Your task to perform on an android device: Add razer blade to the cart on target Image 0: 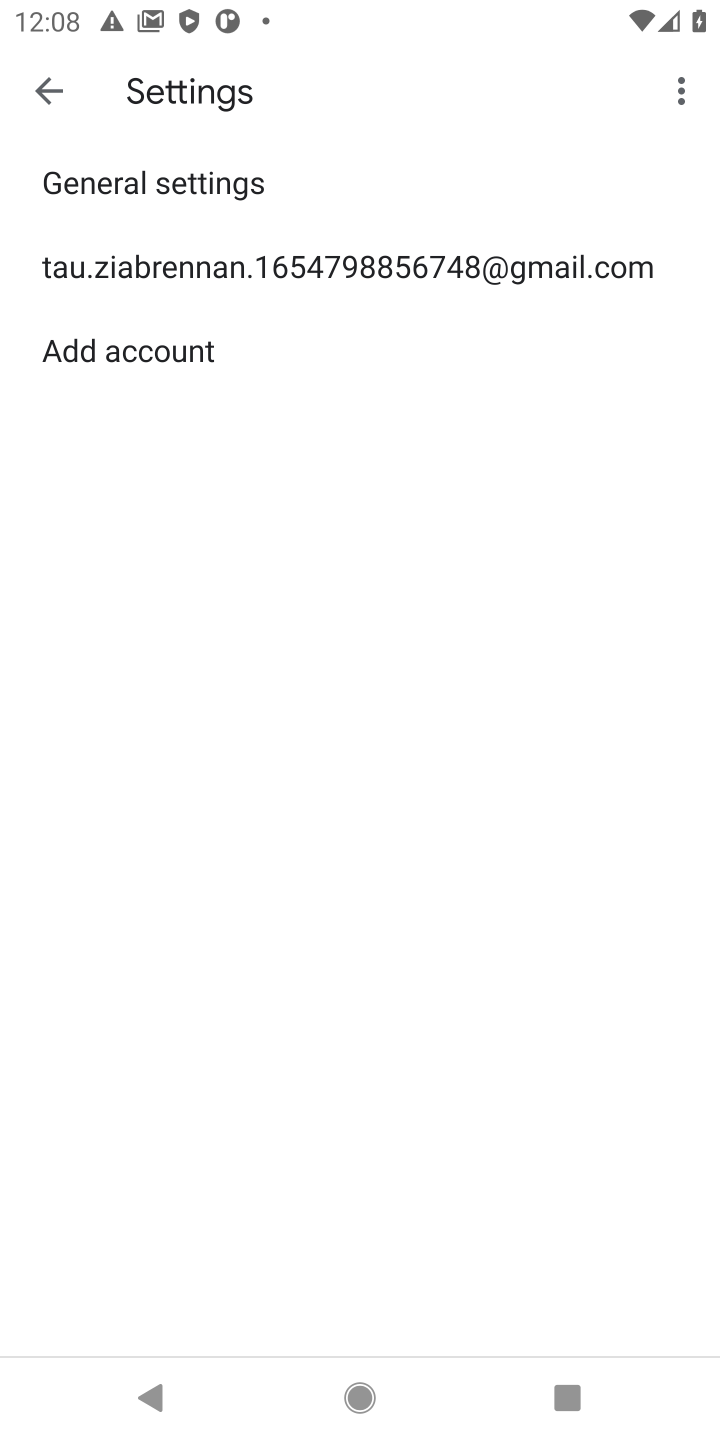
Step 0: press home button
Your task to perform on an android device: Add razer blade to the cart on target Image 1: 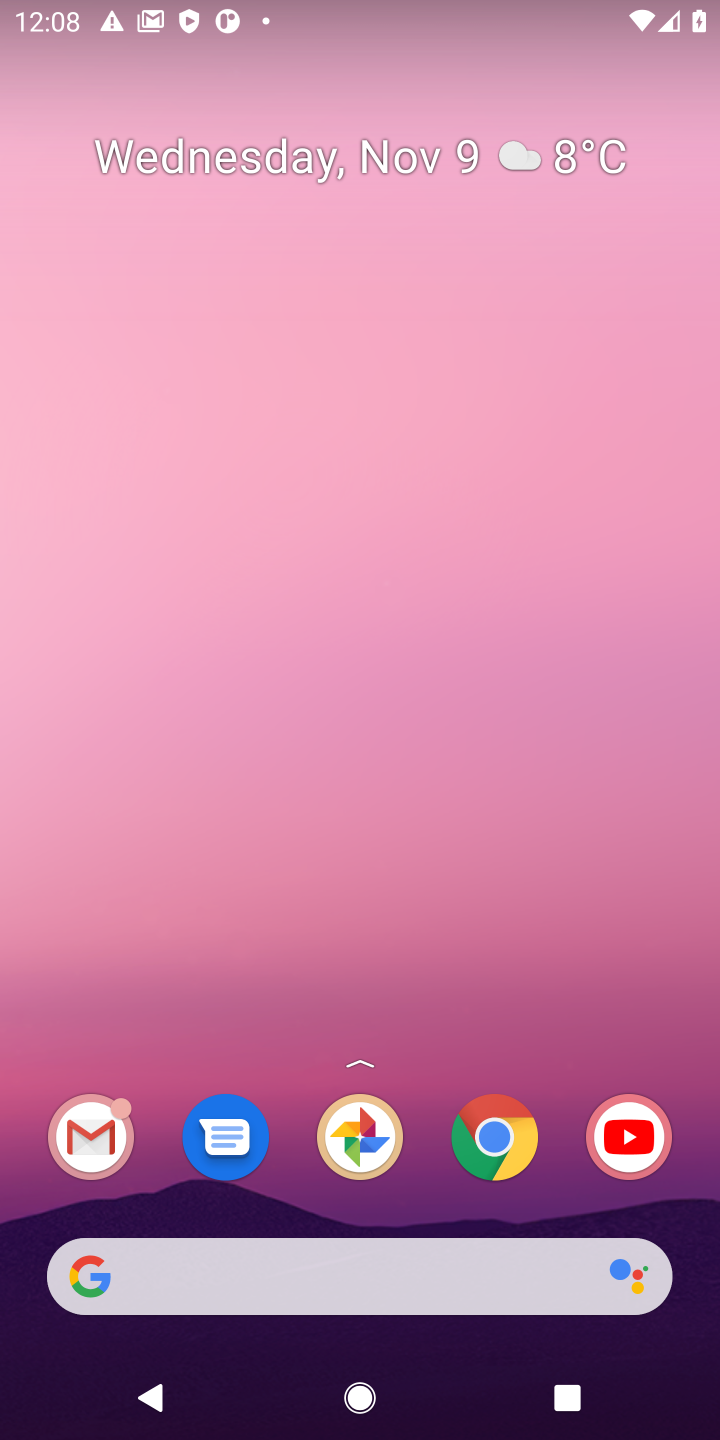
Step 1: click (503, 1131)
Your task to perform on an android device: Add razer blade to the cart on target Image 2: 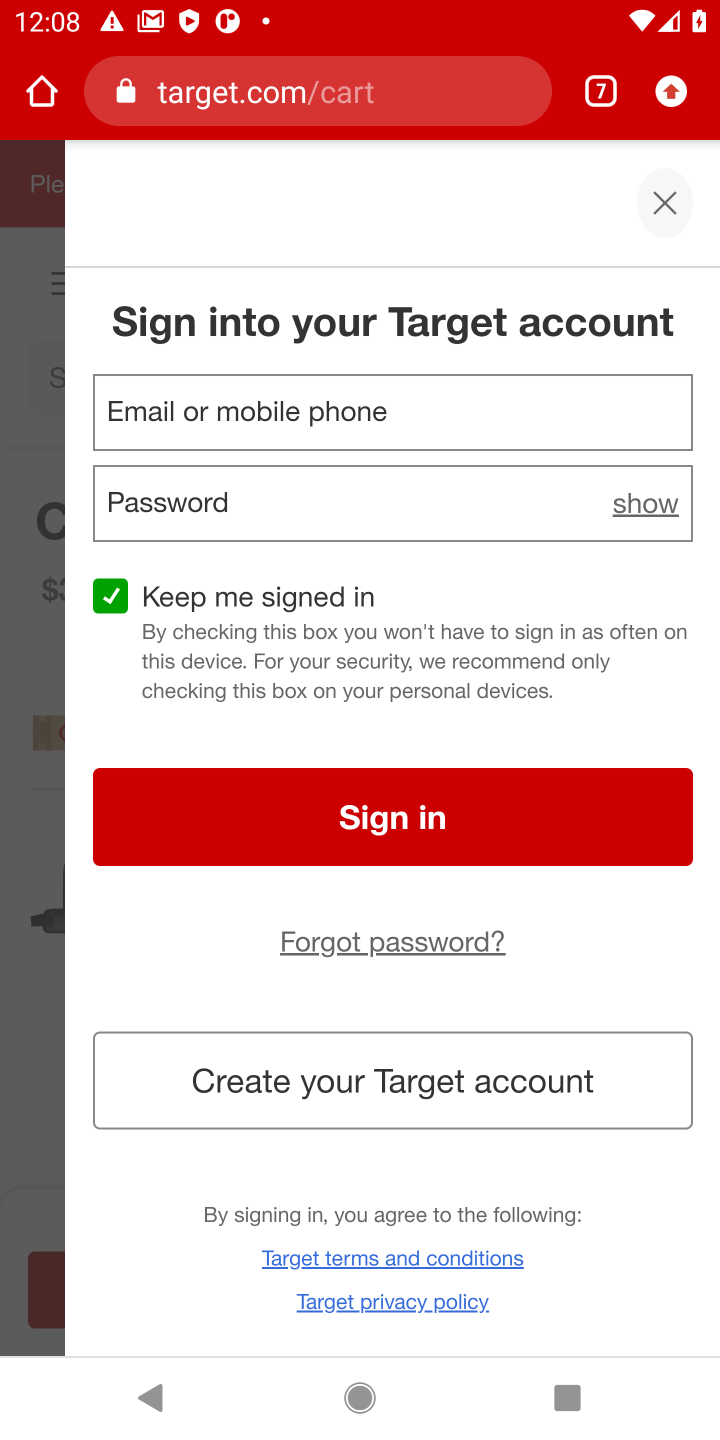
Step 2: click (660, 207)
Your task to perform on an android device: Add razer blade to the cart on target Image 3: 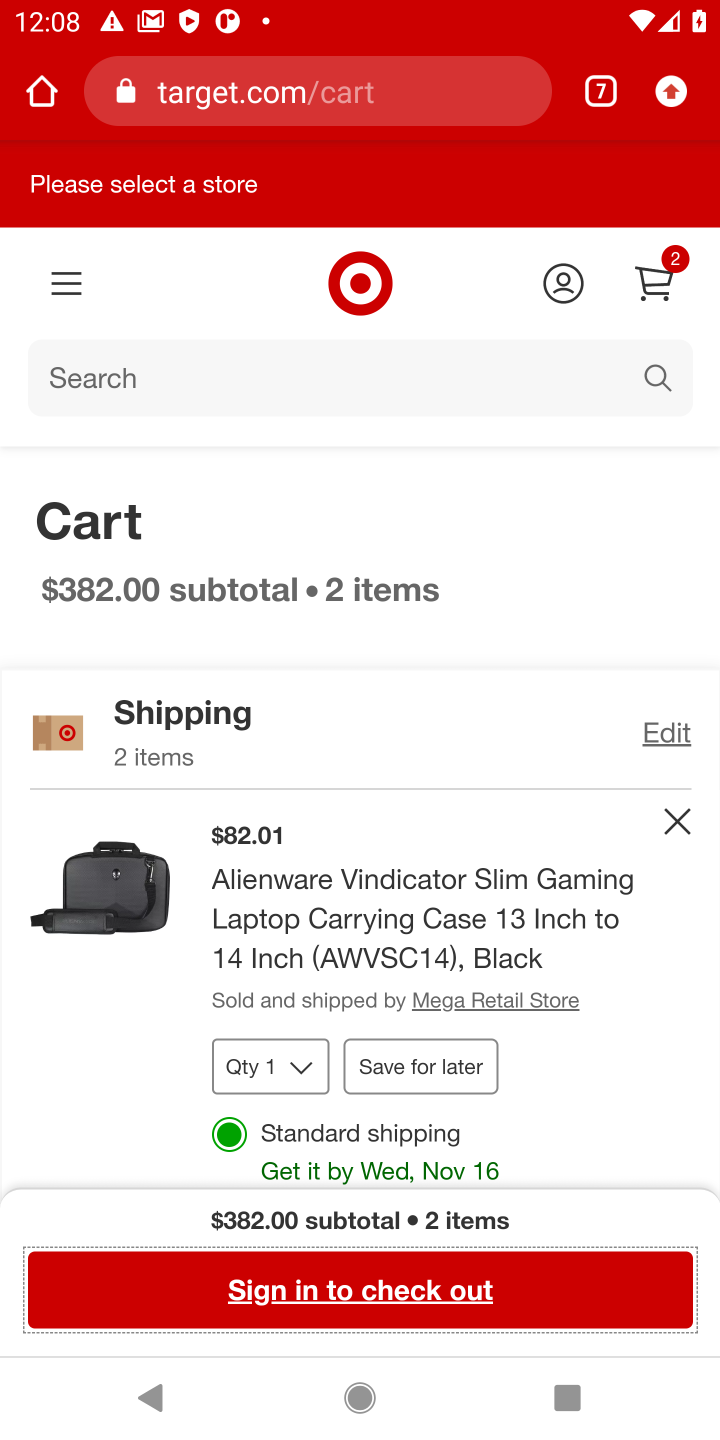
Step 3: click (240, 372)
Your task to perform on an android device: Add razer blade to the cart on target Image 4: 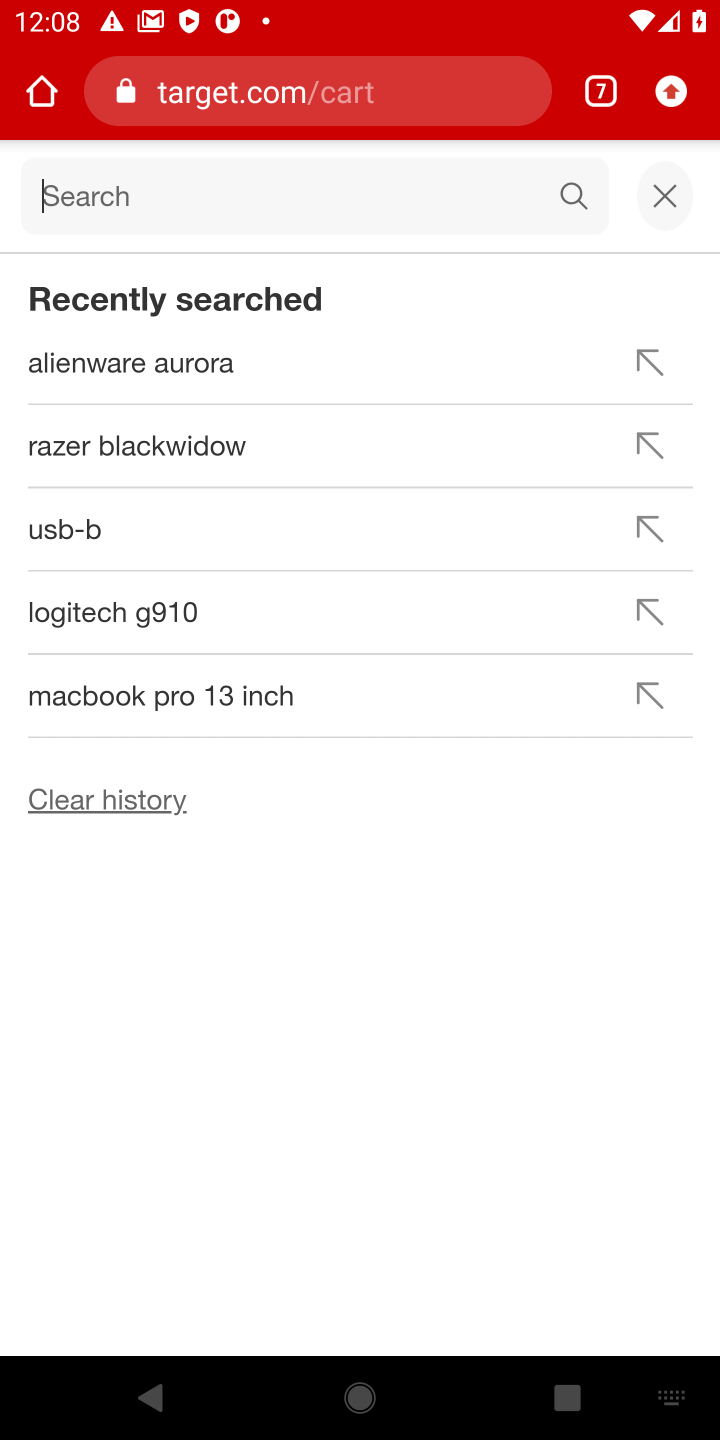
Step 4: type "razer blade"
Your task to perform on an android device: Add razer blade to the cart on target Image 5: 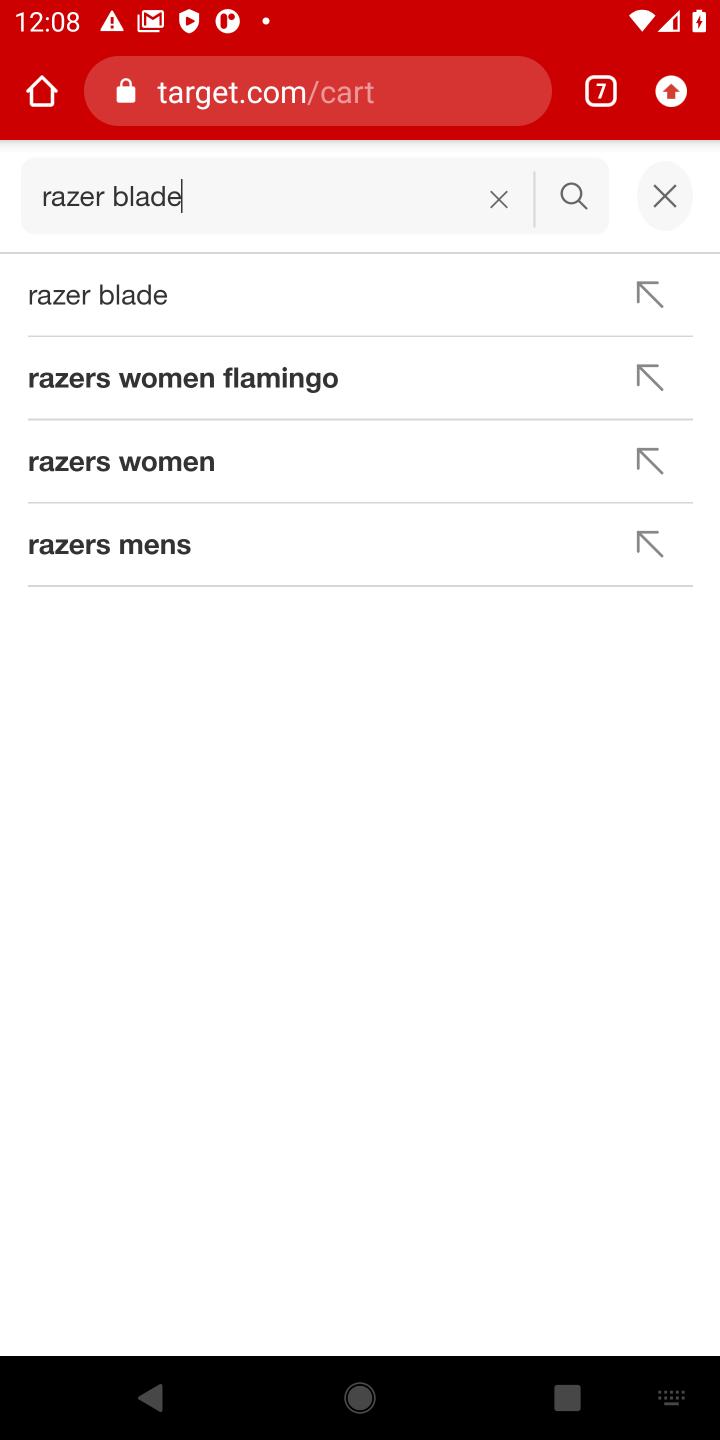
Step 5: click (135, 297)
Your task to perform on an android device: Add razer blade to the cart on target Image 6: 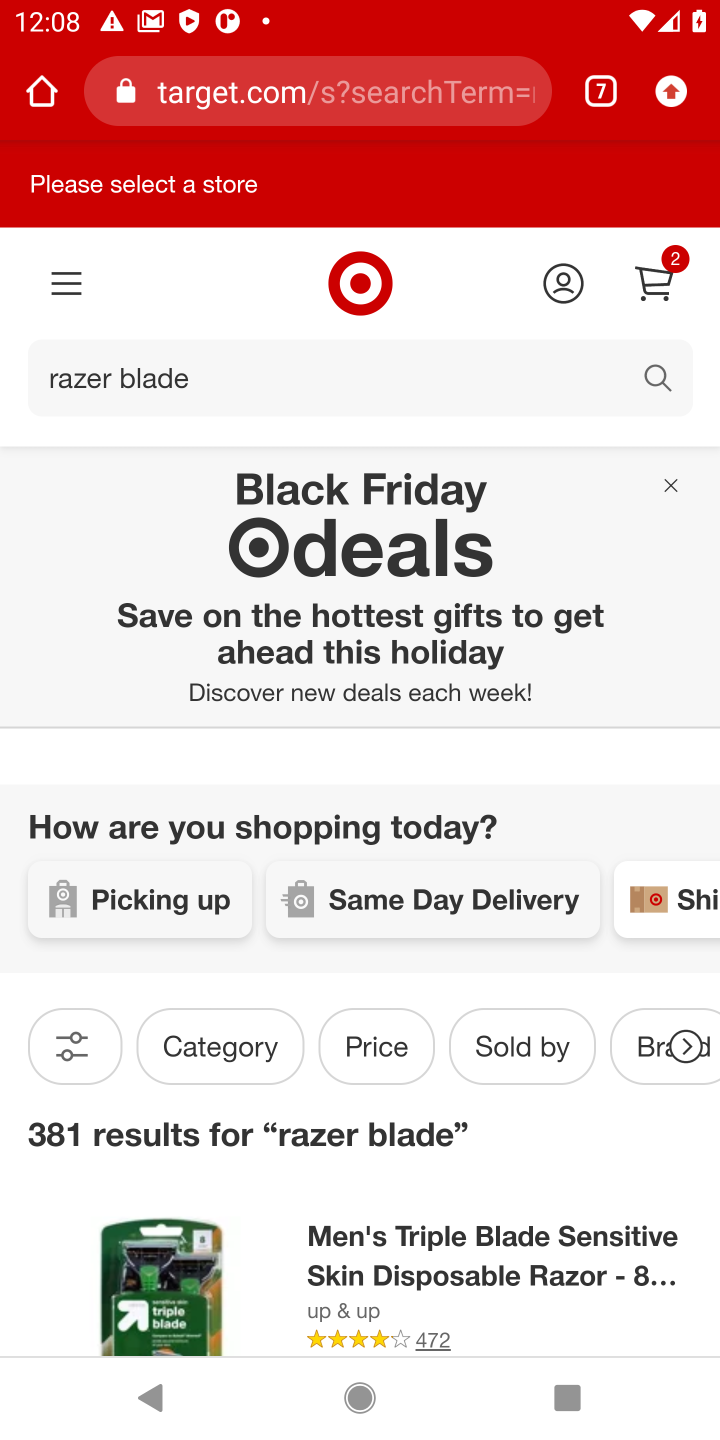
Step 6: drag from (456, 1236) to (431, 241)
Your task to perform on an android device: Add razer blade to the cart on target Image 7: 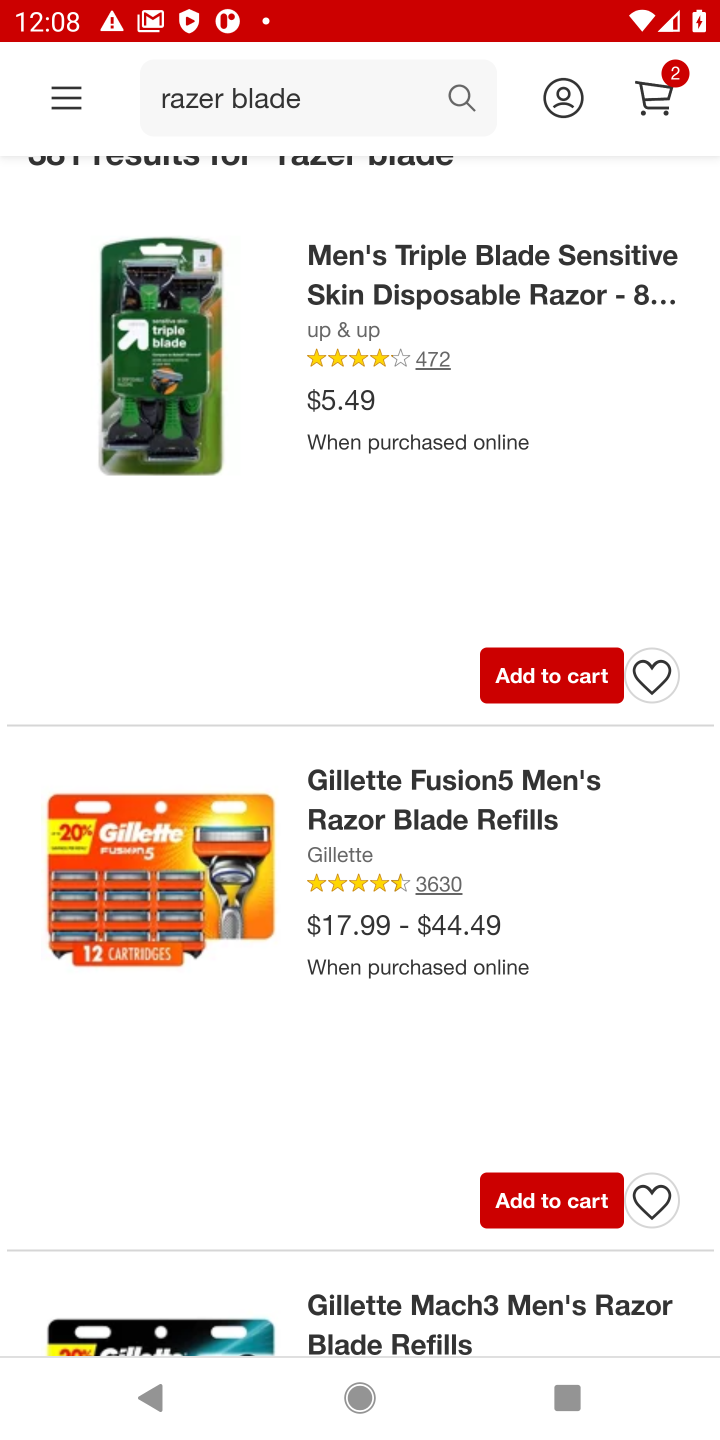
Step 7: click (584, 1208)
Your task to perform on an android device: Add razer blade to the cart on target Image 8: 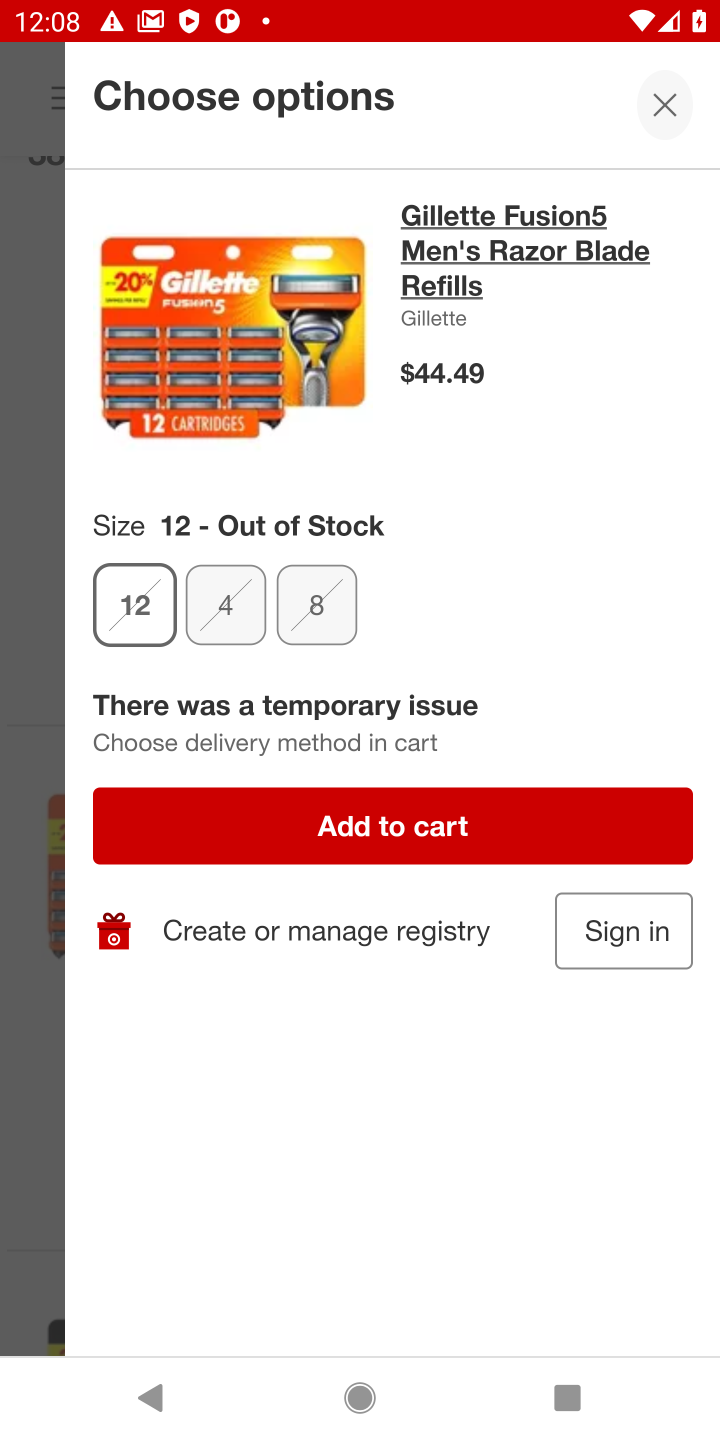
Step 8: task complete